Your task to perform on an android device: move a message to another label in the gmail app Image 0: 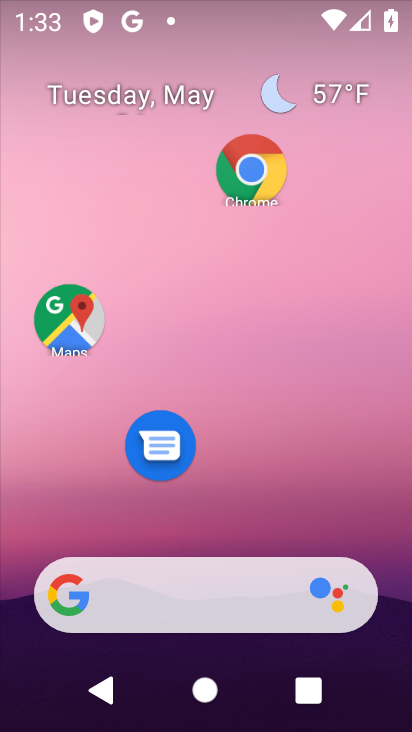
Step 0: drag from (231, 724) to (228, 139)
Your task to perform on an android device: move a message to another label in the gmail app Image 1: 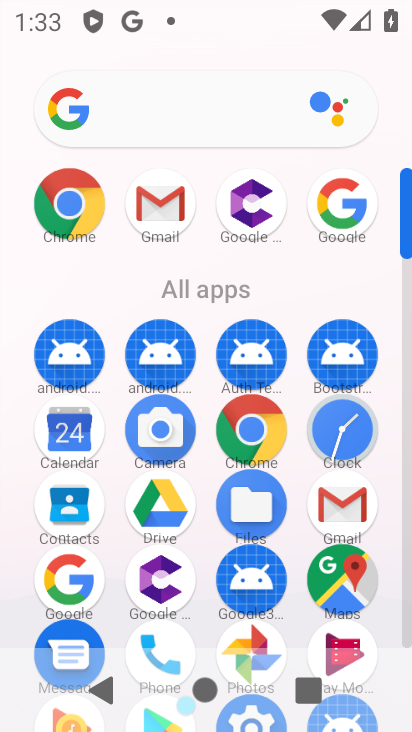
Step 1: click (342, 499)
Your task to perform on an android device: move a message to another label in the gmail app Image 2: 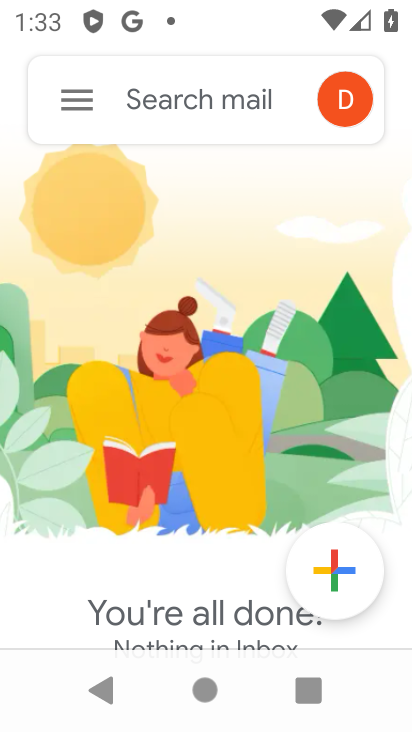
Step 2: task complete